Your task to perform on an android device: choose inbox layout in the gmail app Image 0: 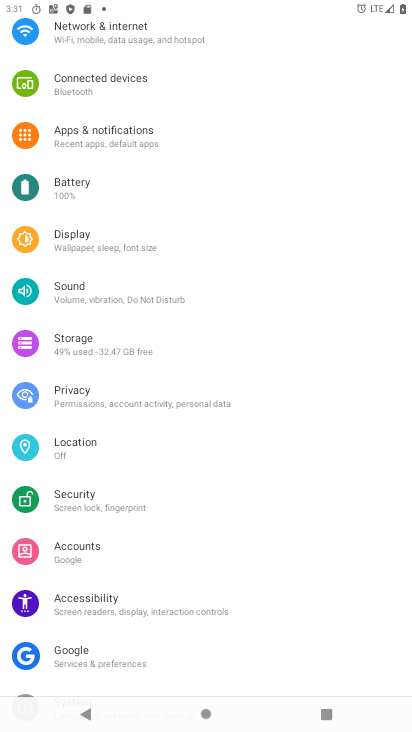
Step 0: press home button
Your task to perform on an android device: choose inbox layout in the gmail app Image 1: 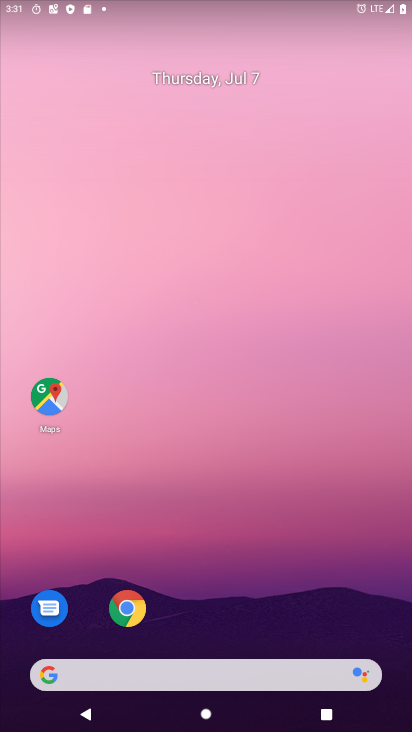
Step 1: drag from (253, 727) to (224, 206)
Your task to perform on an android device: choose inbox layout in the gmail app Image 2: 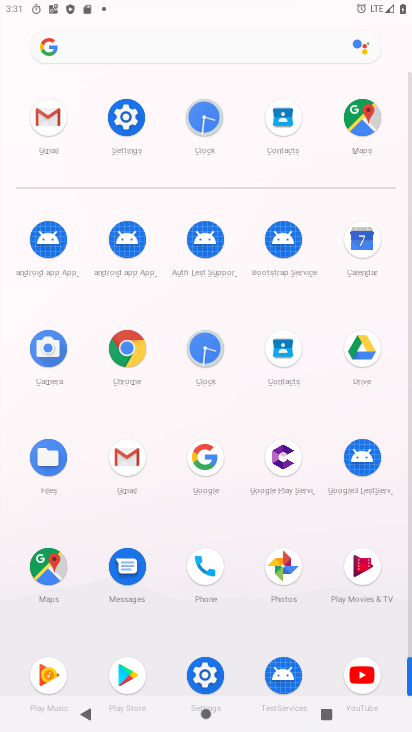
Step 2: click (117, 455)
Your task to perform on an android device: choose inbox layout in the gmail app Image 3: 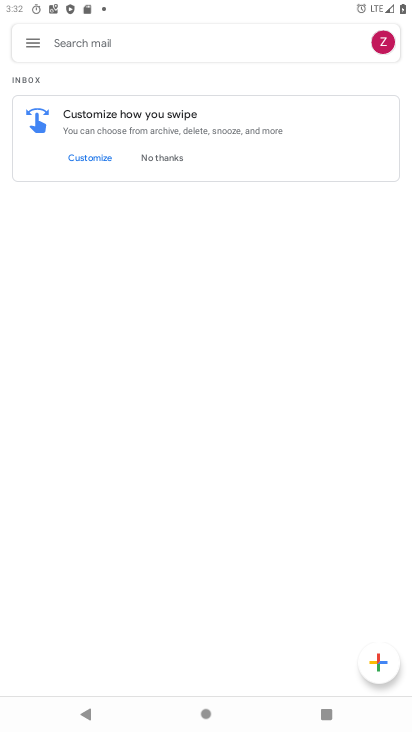
Step 3: click (33, 38)
Your task to perform on an android device: choose inbox layout in the gmail app Image 4: 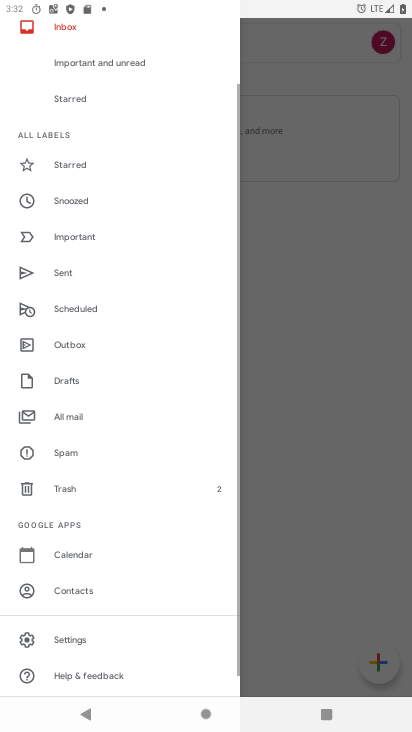
Step 4: click (72, 639)
Your task to perform on an android device: choose inbox layout in the gmail app Image 5: 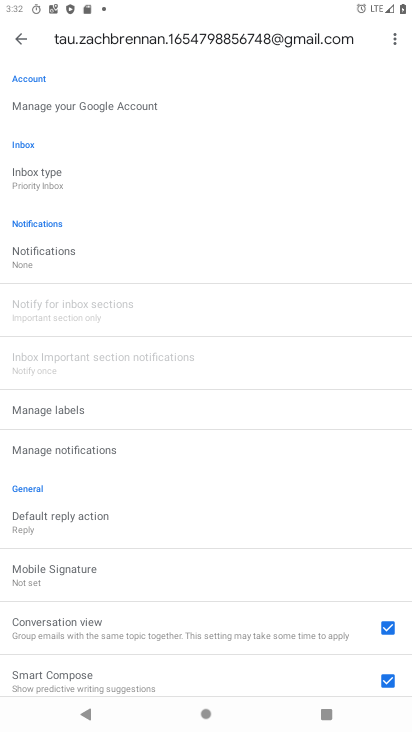
Step 5: click (45, 176)
Your task to perform on an android device: choose inbox layout in the gmail app Image 6: 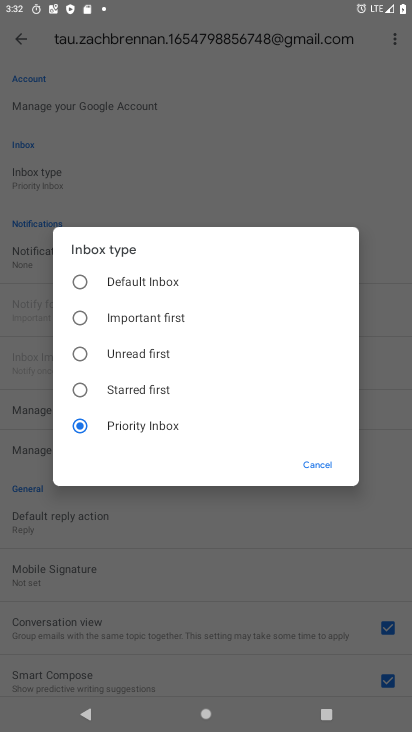
Step 6: click (82, 281)
Your task to perform on an android device: choose inbox layout in the gmail app Image 7: 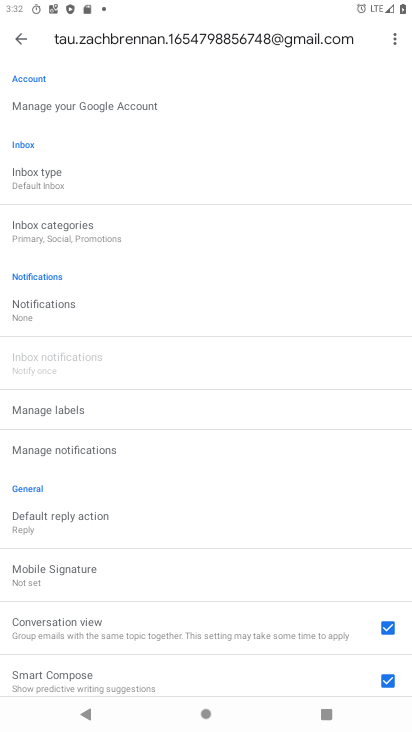
Step 7: task complete